Your task to perform on an android device: open app "Google Home" (install if not already installed) Image 0: 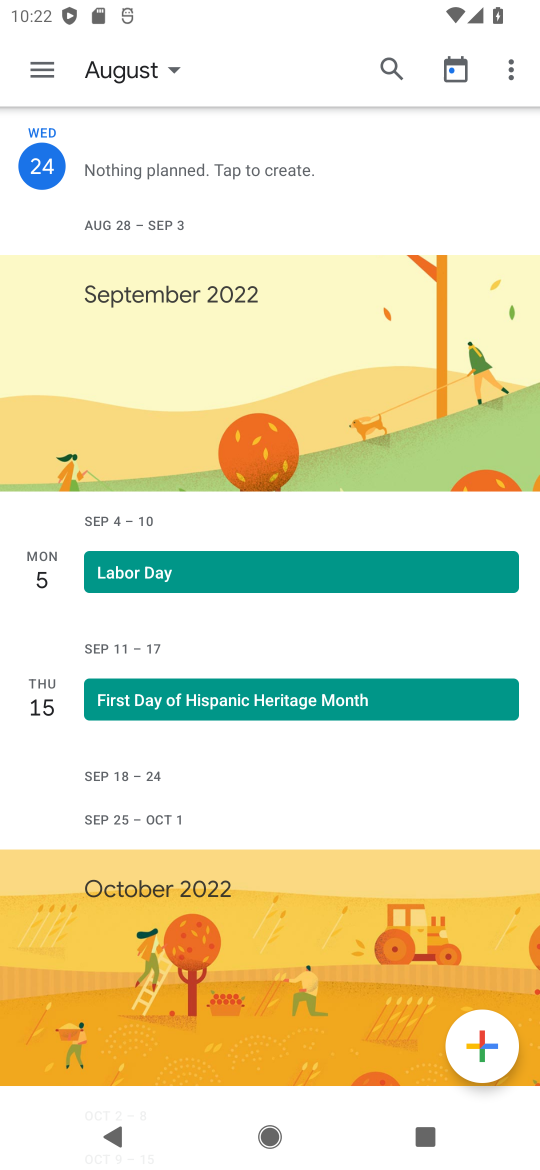
Step 0: press home button
Your task to perform on an android device: open app "Google Home" (install if not already installed) Image 1: 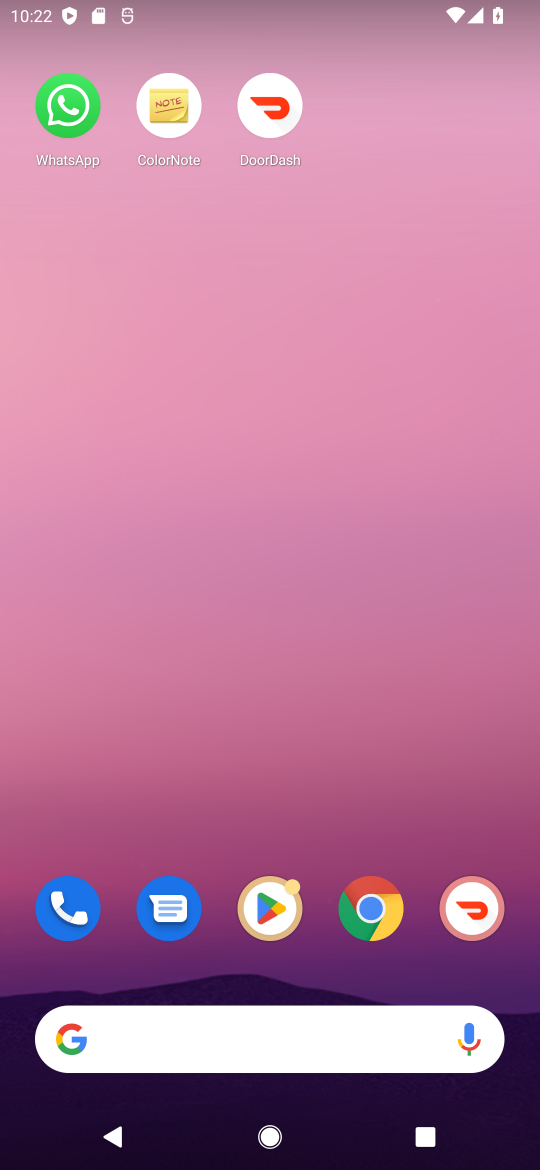
Step 1: click (285, 919)
Your task to perform on an android device: open app "Google Home" (install if not already installed) Image 2: 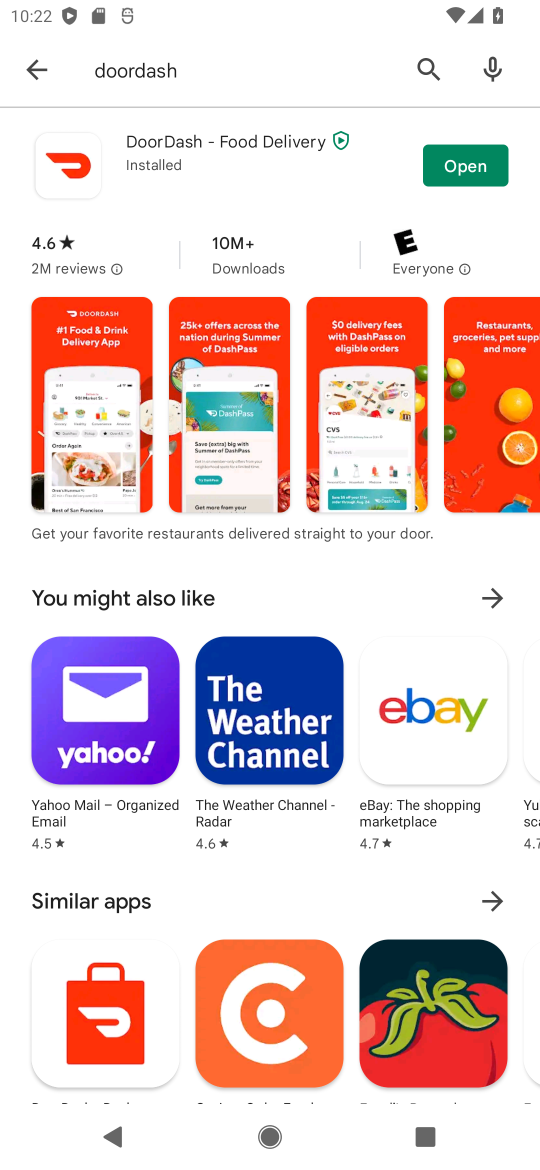
Step 2: click (21, 71)
Your task to perform on an android device: open app "Google Home" (install if not already installed) Image 3: 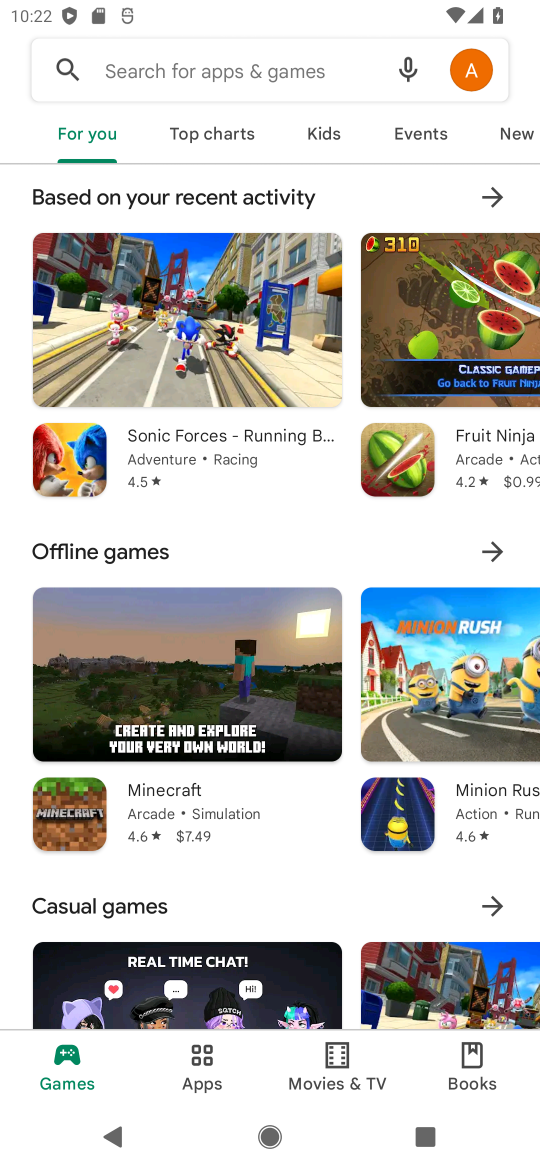
Step 3: click (133, 64)
Your task to perform on an android device: open app "Google Home" (install if not already installed) Image 4: 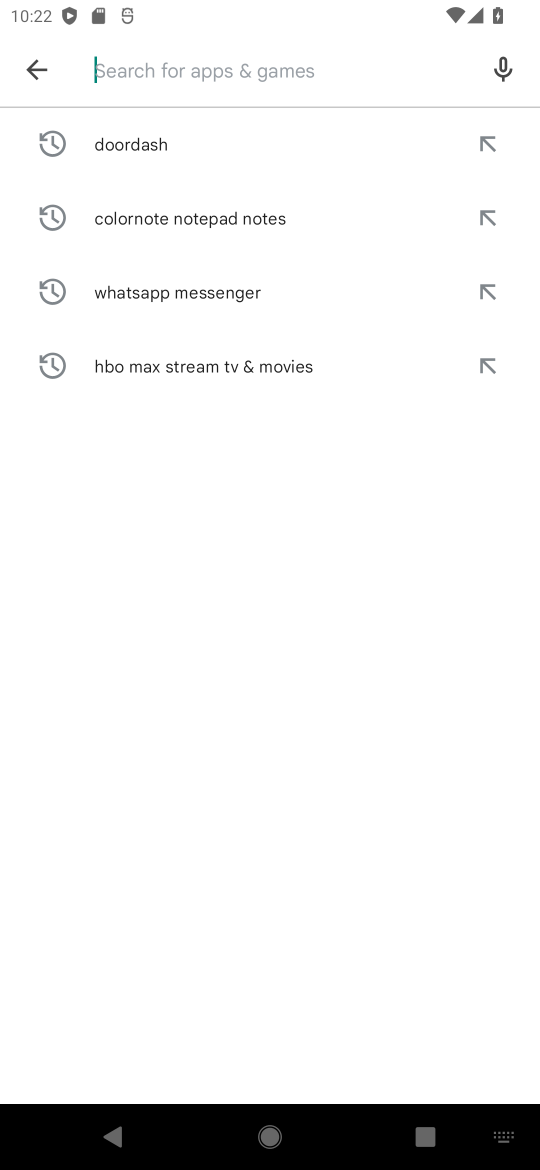
Step 4: type "Google Home"
Your task to perform on an android device: open app "Google Home" (install if not already installed) Image 5: 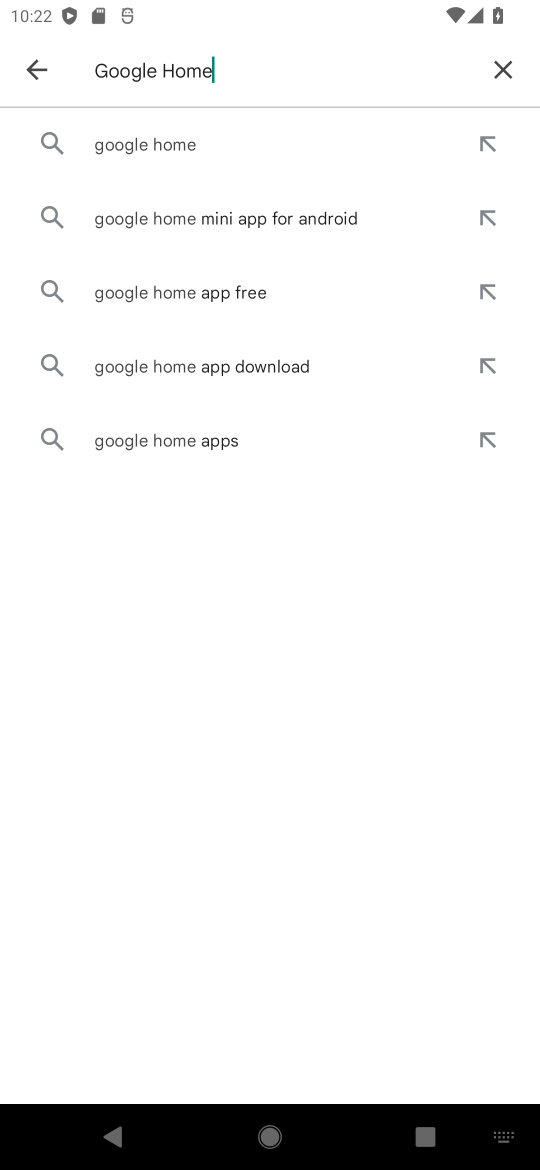
Step 5: click (127, 146)
Your task to perform on an android device: open app "Google Home" (install if not already installed) Image 6: 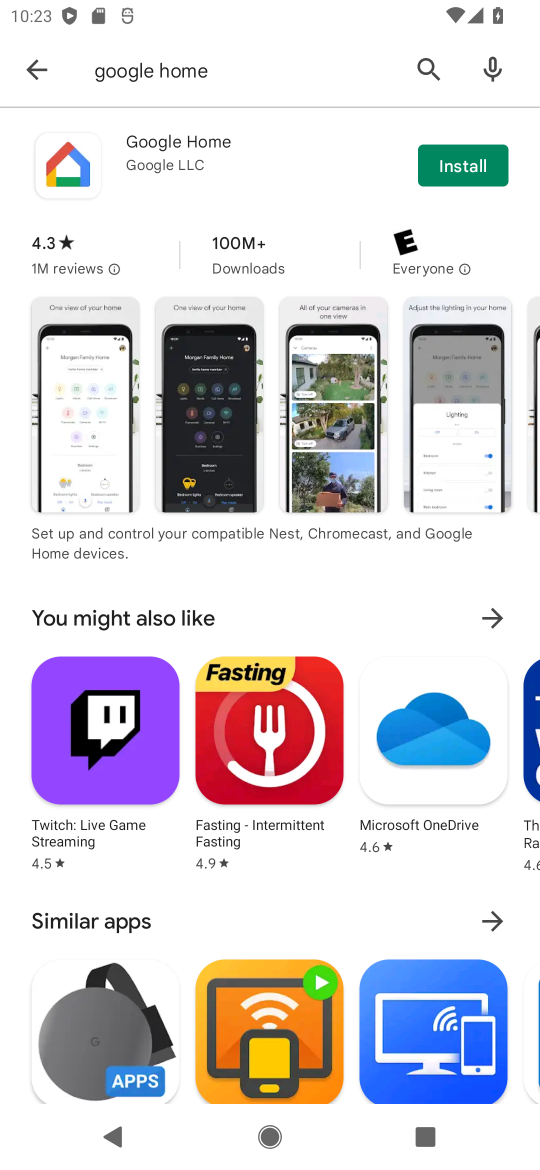
Step 6: click (467, 162)
Your task to perform on an android device: open app "Google Home" (install if not already installed) Image 7: 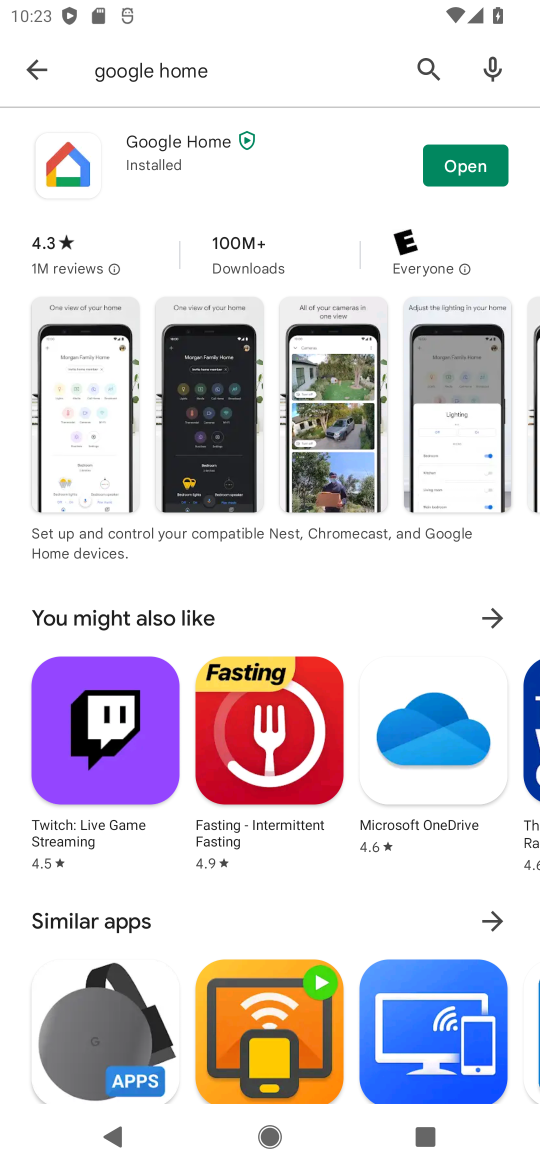
Step 7: click (467, 162)
Your task to perform on an android device: open app "Google Home" (install if not already installed) Image 8: 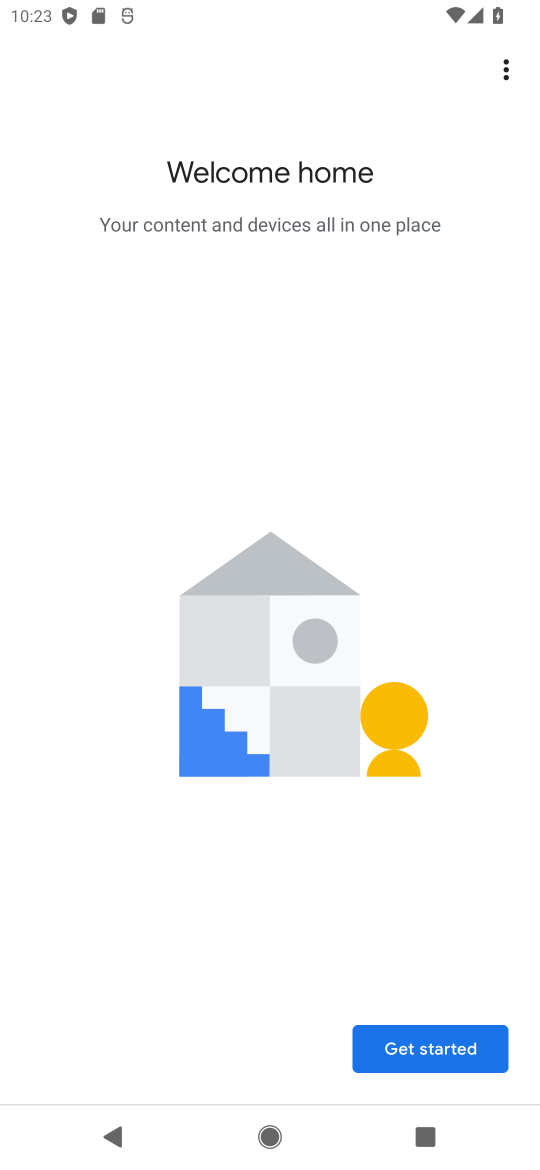
Step 8: task complete